Your task to perform on an android device: change the upload size in google photos Image 0: 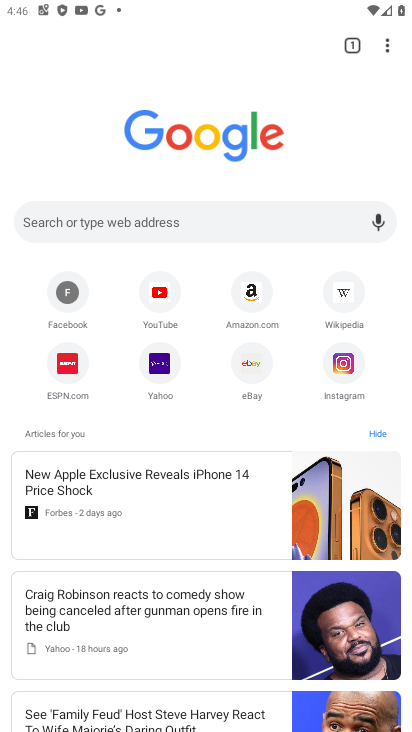
Step 0: press home button
Your task to perform on an android device: change the upload size in google photos Image 1: 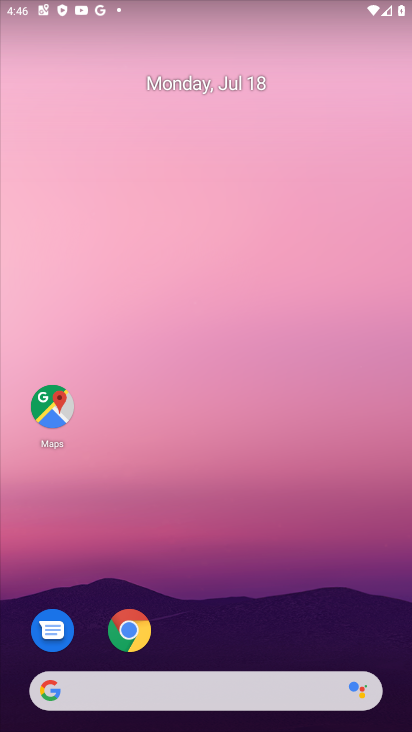
Step 1: drag from (207, 655) to (267, 122)
Your task to perform on an android device: change the upload size in google photos Image 2: 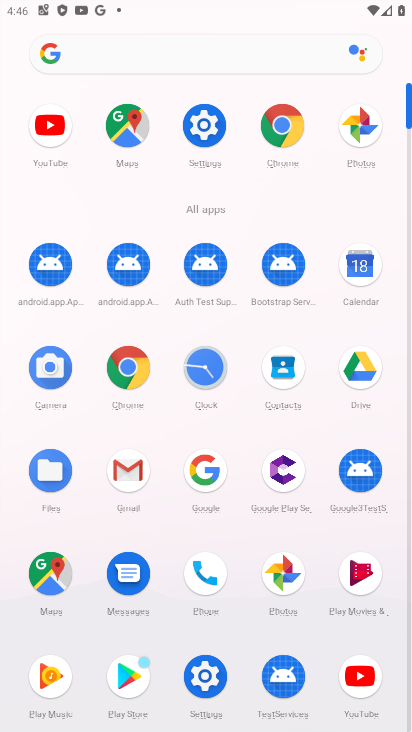
Step 2: click (357, 117)
Your task to perform on an android device: change the upload size in google photos Image 3: 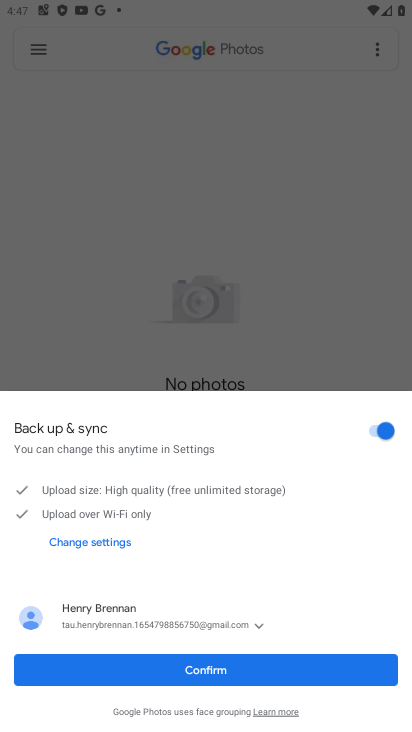
Step 3: press home button
Your task to perform on an android device: change the upload size in google photos Image 4: 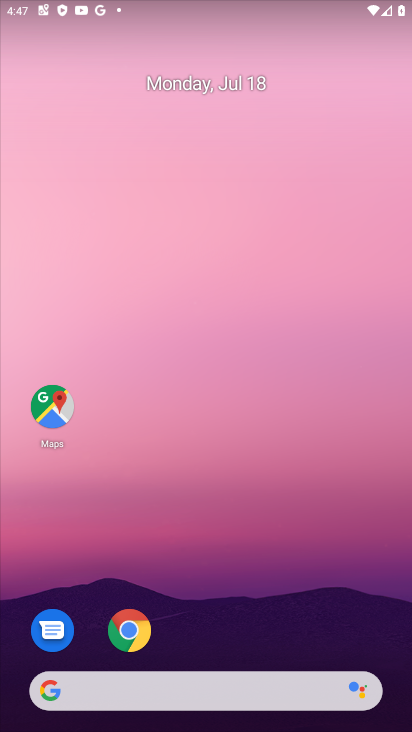
Step 4: drag from (222, 649) to (293, 235)
Your task to perform on an android device: change the upload size in google photos Image 5: 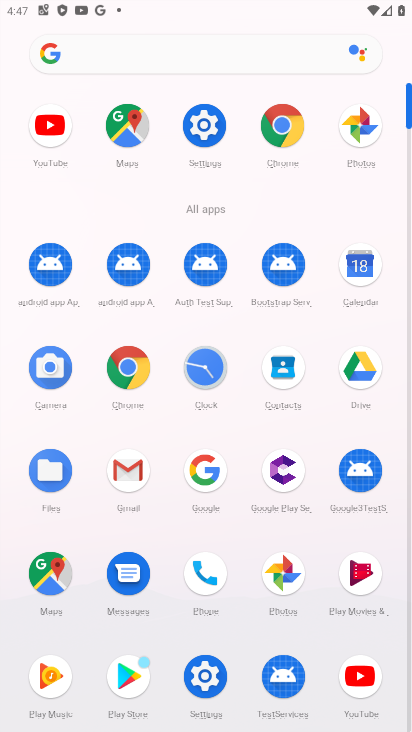
Step 5: click (283, 564)
Your task to perform on an android device: change the upload size in google photos Image 6: 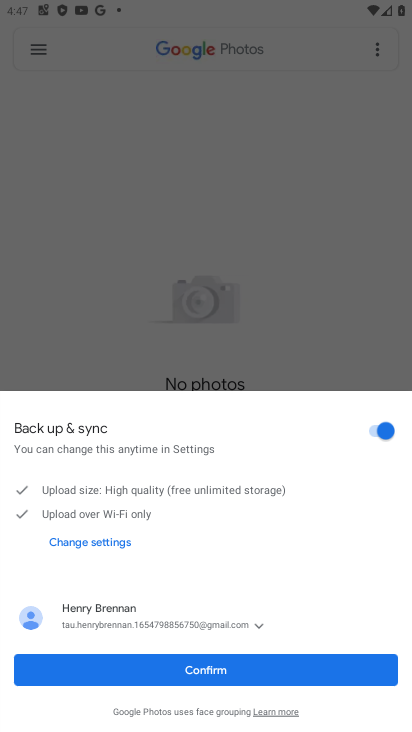
Step 6: click (200, 661)
Your task to perform on an android device: change the upload size in google photos Image 7: 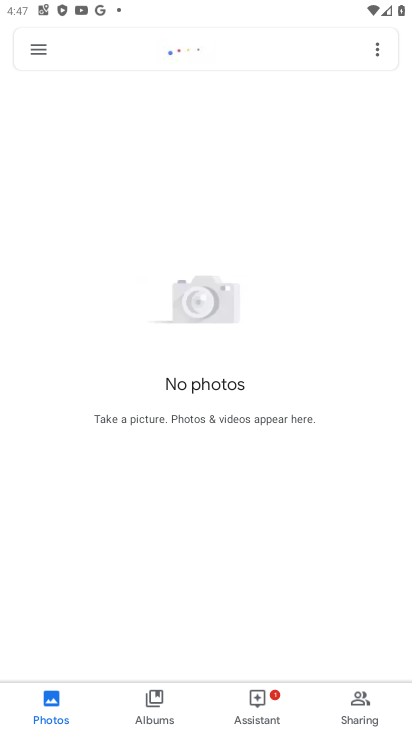
Step 7: click (33, 44)
Your task to perform on an android device: change the upload size in google photos Image 8: 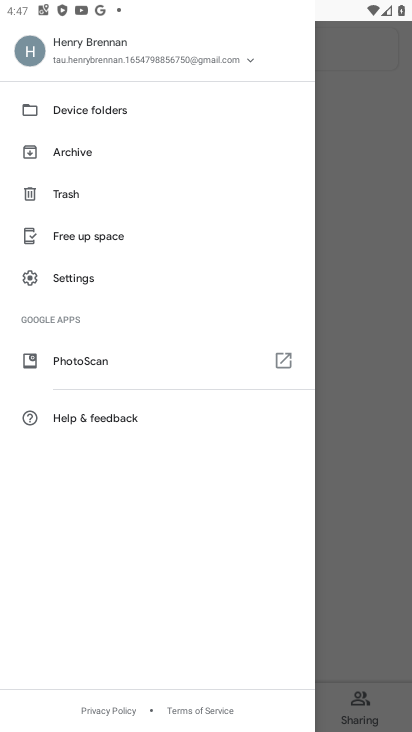
Step 8: click (80, 275)
Your task to perform on an android device: change the upload size in google photos Image 9: 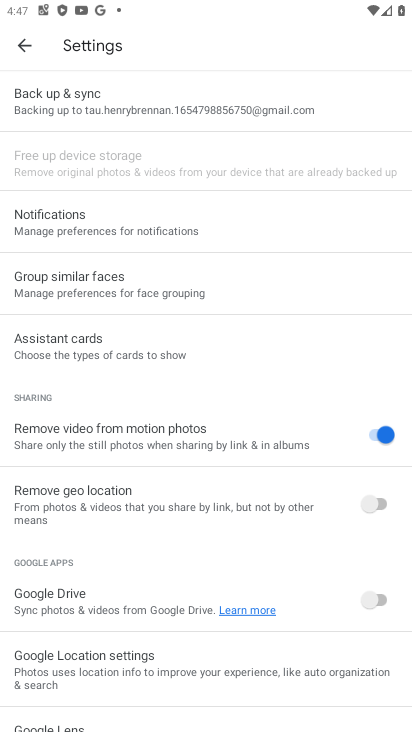
Step 9: click (61, 99)
Your task to perform on an android device: change the upload size in google photos Image 10: 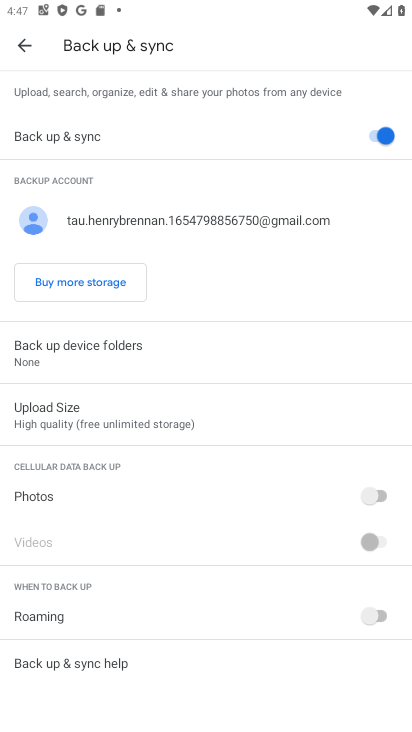
Step 10: click (94, 408)
Your task to perform on an android device: change the upload size in google photos Image 11: 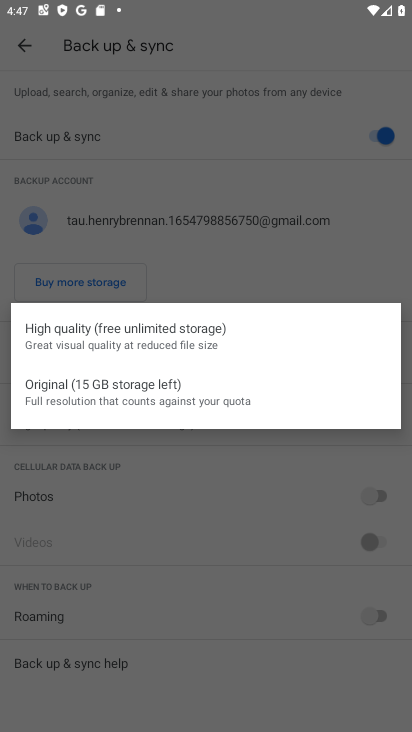
Step 11: click (125, 385)
Your task to perform on an android device: change the upload size in google photos Image 12: 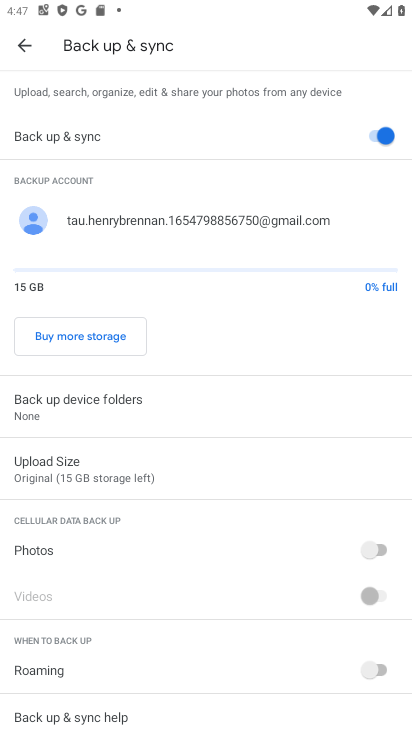
Step 12: task complete